Your task to perform on an android device: star an email in the gmail app Image 0: 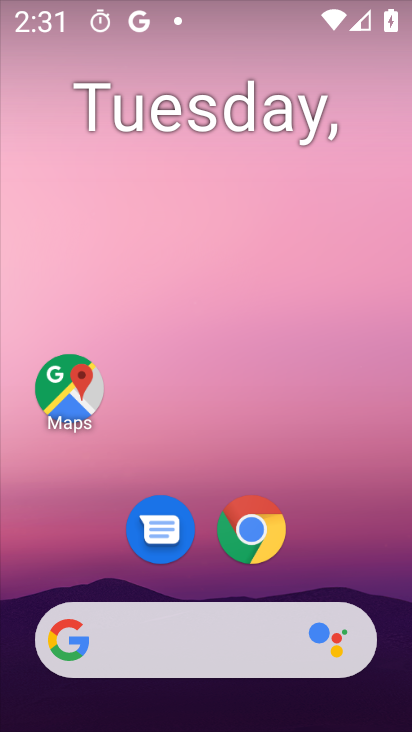
Step 0: drag from (372, 503) to (332, 3)
Your task to perform on an android device: star an email in the gmail app Image 1: 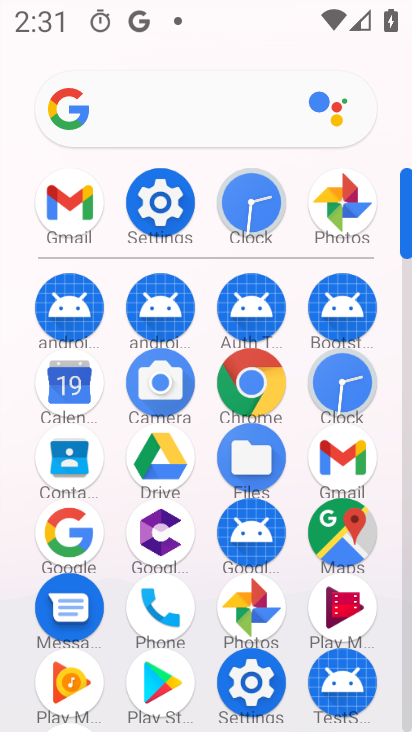
Step 1: click (60, 210)
Your task to perform on an android device: star an email in the gmail app Image 2: 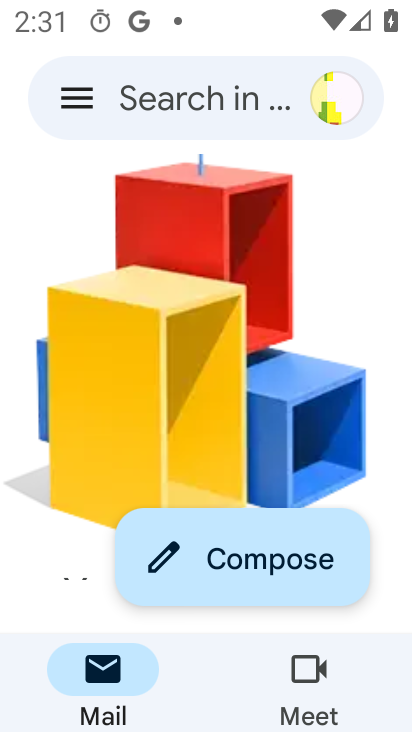
Step 2: task complete